Your task to perform on an android device: Go to wifi settings Image 0: 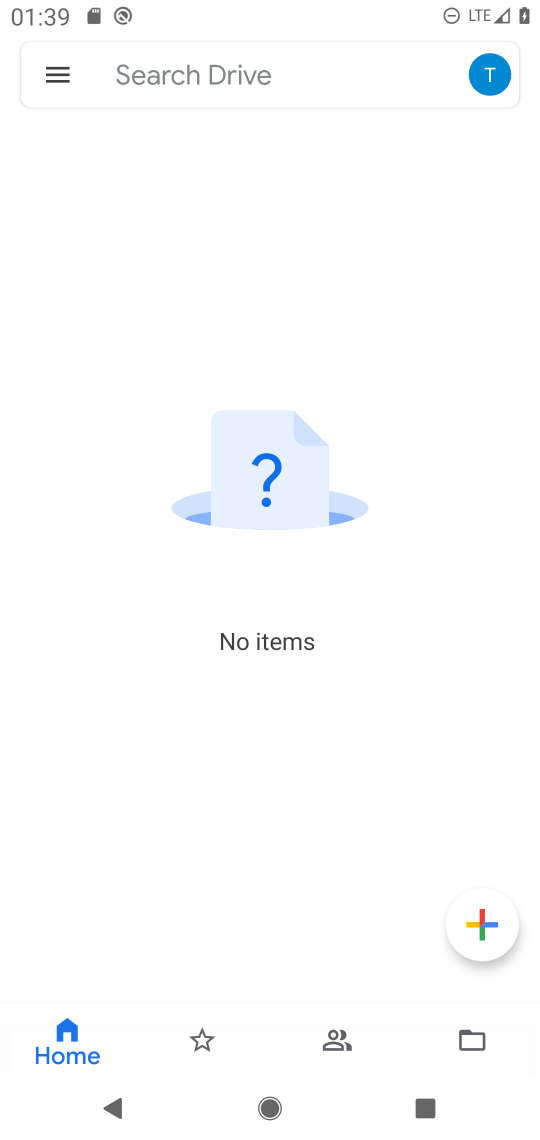
Step 0: press home button
Your task to perform on an android device: Go to wifi settings Image 1: 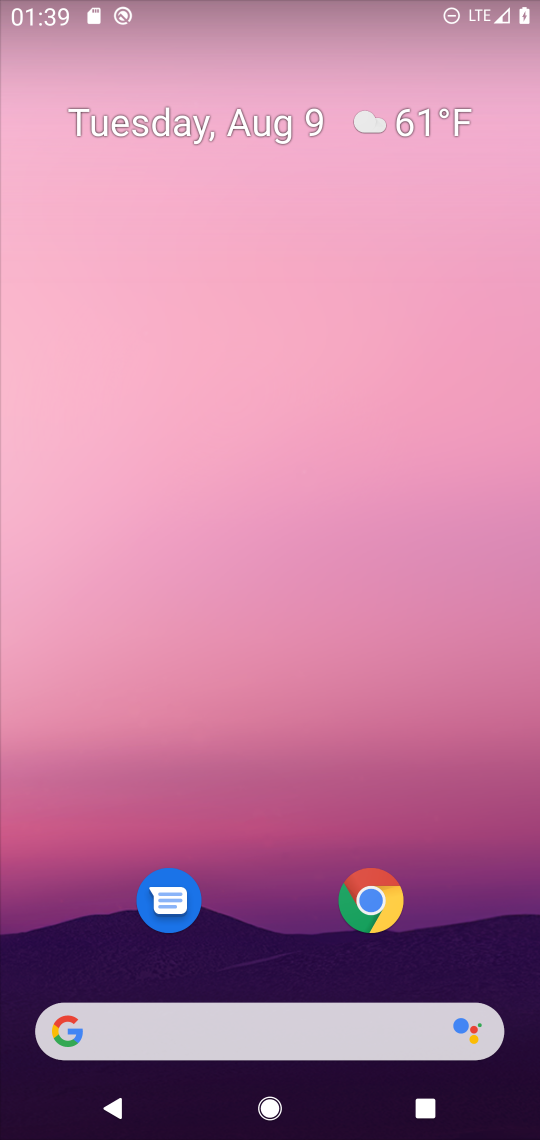
Step 1: drag from (253, 925) to (333, 123)
Your task to perform on an android device: Go to wifi settings Image 2: 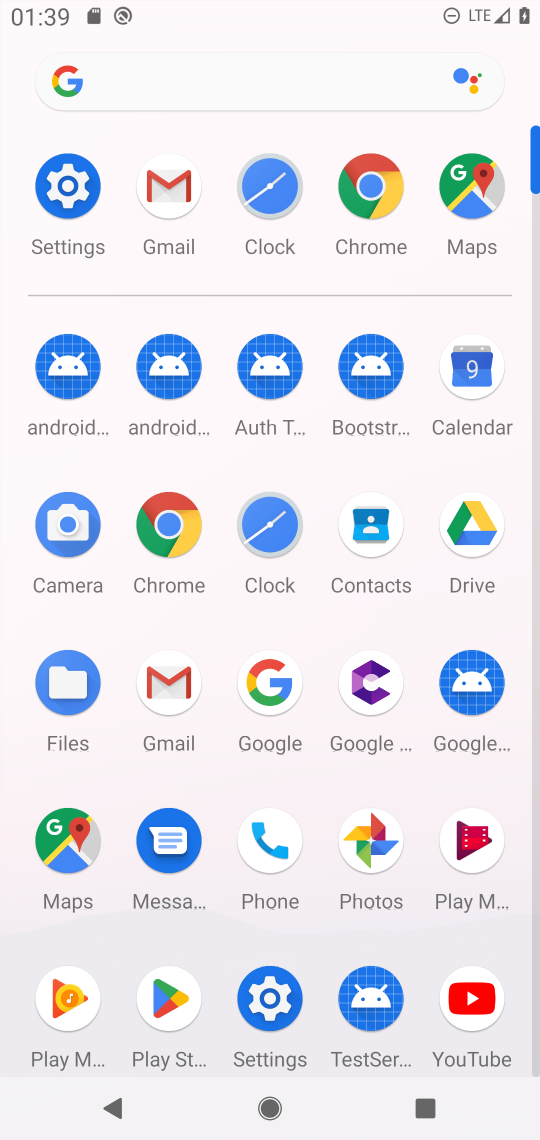
Step 2: click (72, 197)
Your task to perform on an android device: Go to wifi settings Image 3: 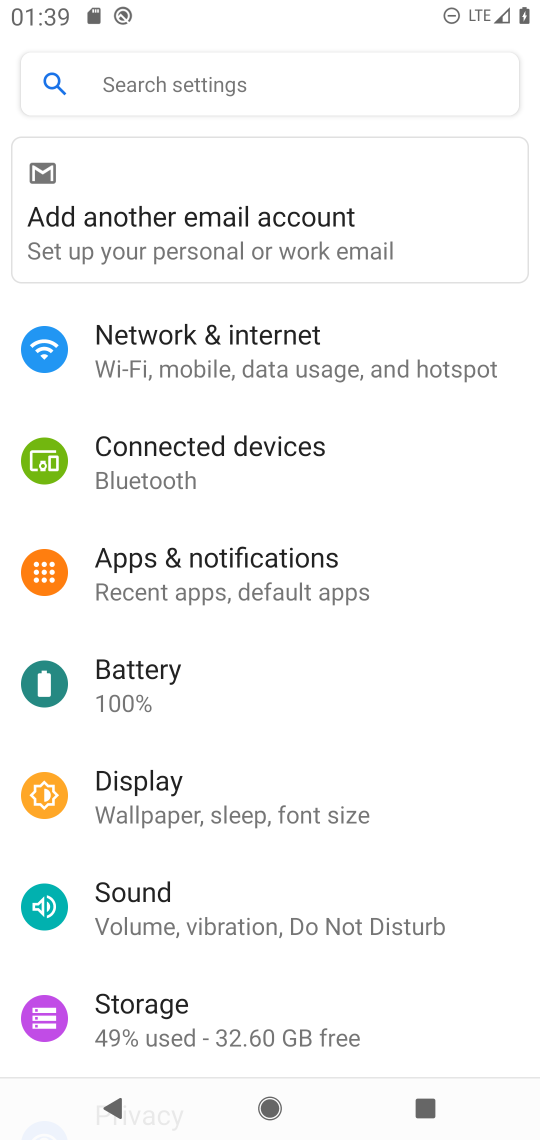
Step 3: drag from (453, 784) to (468, 533)
Your task to perform on an android device: Go to wifi settings Image 4: 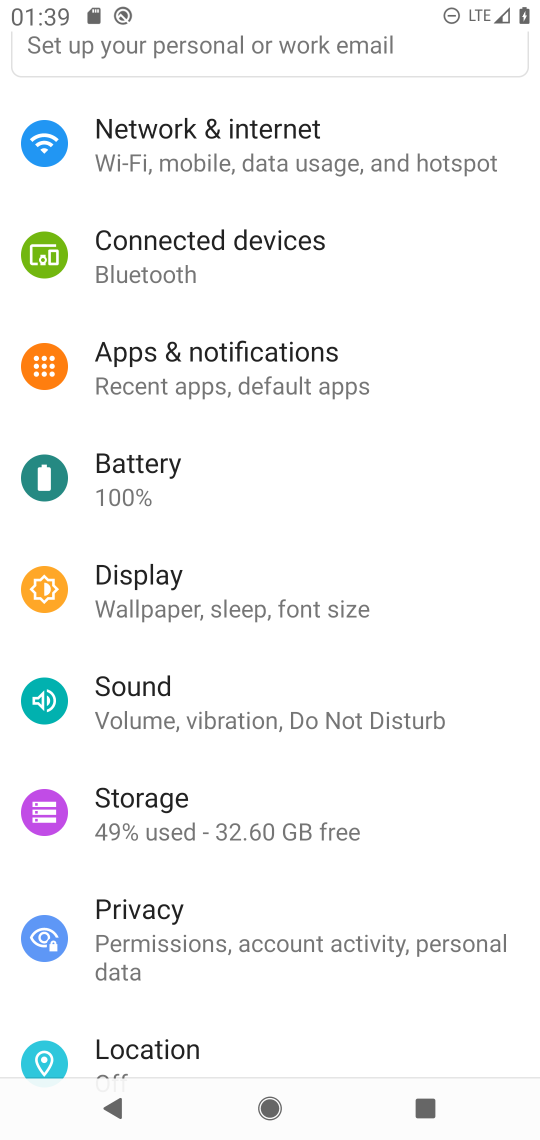
Step 4: drag from (452, 837) to (496, 511)
Your task to perform on an android device: Go to wifi settings Image 5: 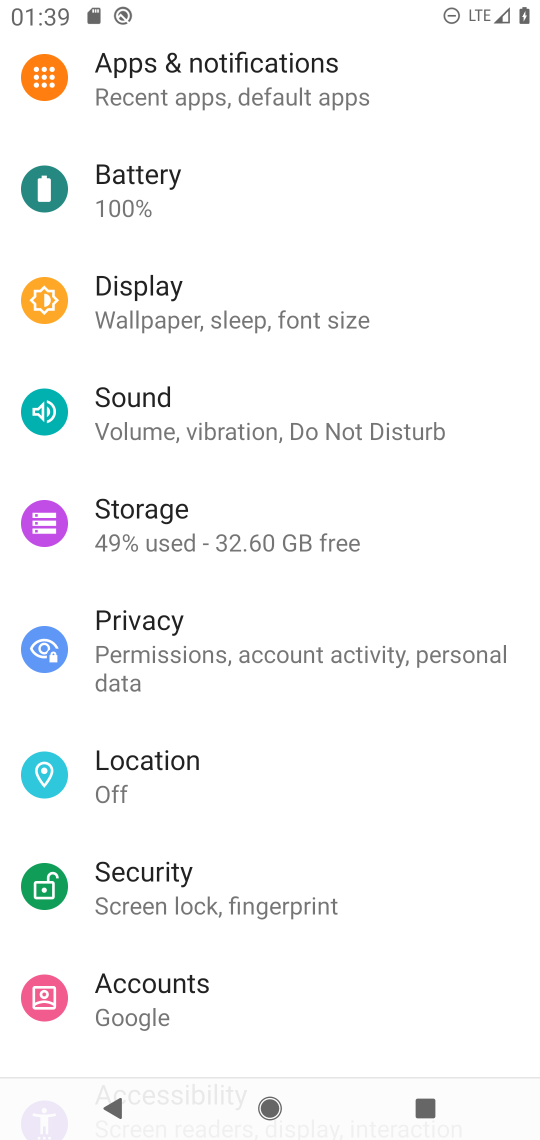
Step 5: drag from (449, 975) to (464, 392)
Your task to perform on an android device: Go to wifi settings Image 6: 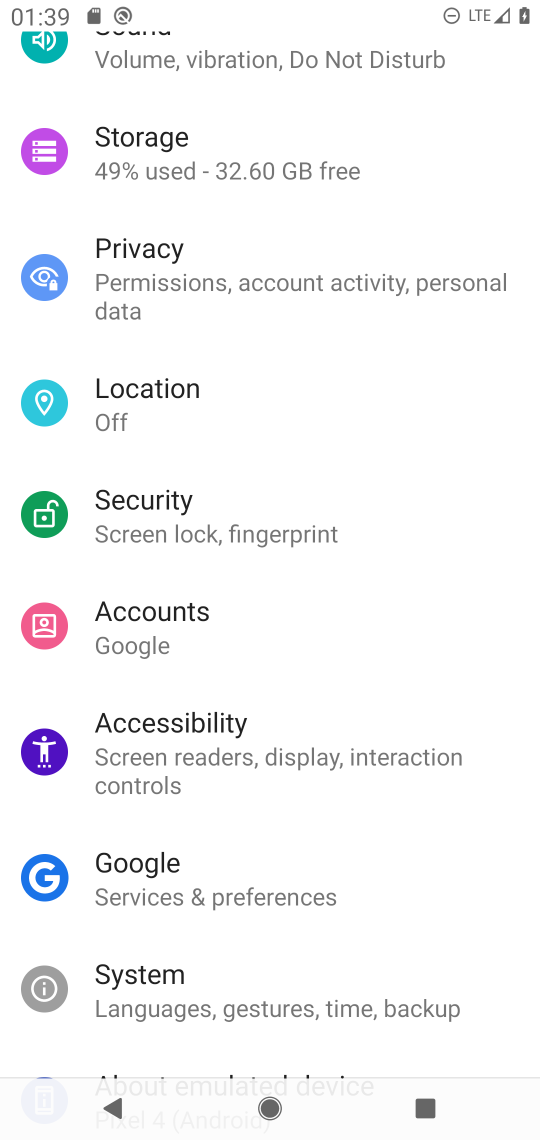
Step 6: drag from (422, 903) to (444, 458)
Your task to perform on an android device: Go to wifi settings Image 7: 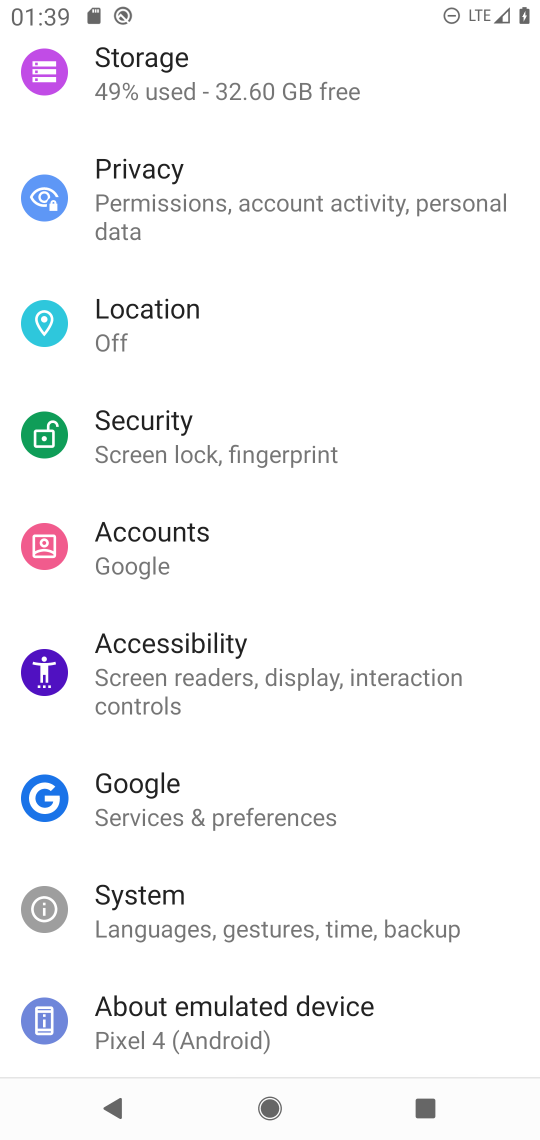
Step 7: drag from (420, 293) to (426, 647)
Your task to perform on an android device: Go to wifi settings Image 8: 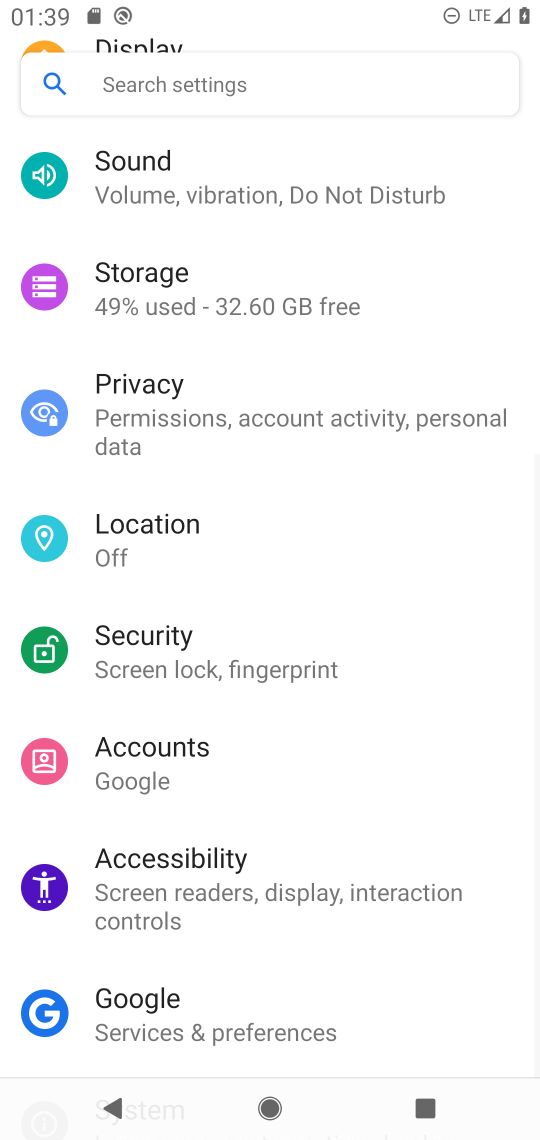
Step 8: drag from (483, 185) to (442, 667)
Your task to perform on an android device: Go to wifi settings Image 9: 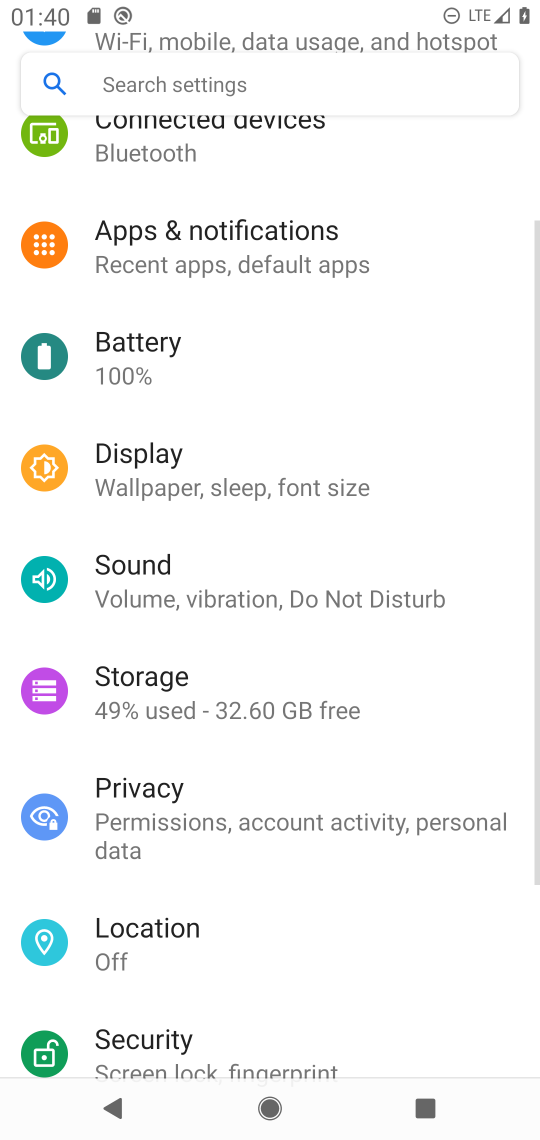
Step 9: drag from (451, 182) to (438, 556)
Your task to perform on an android device: Go to wifi settings Image 10: 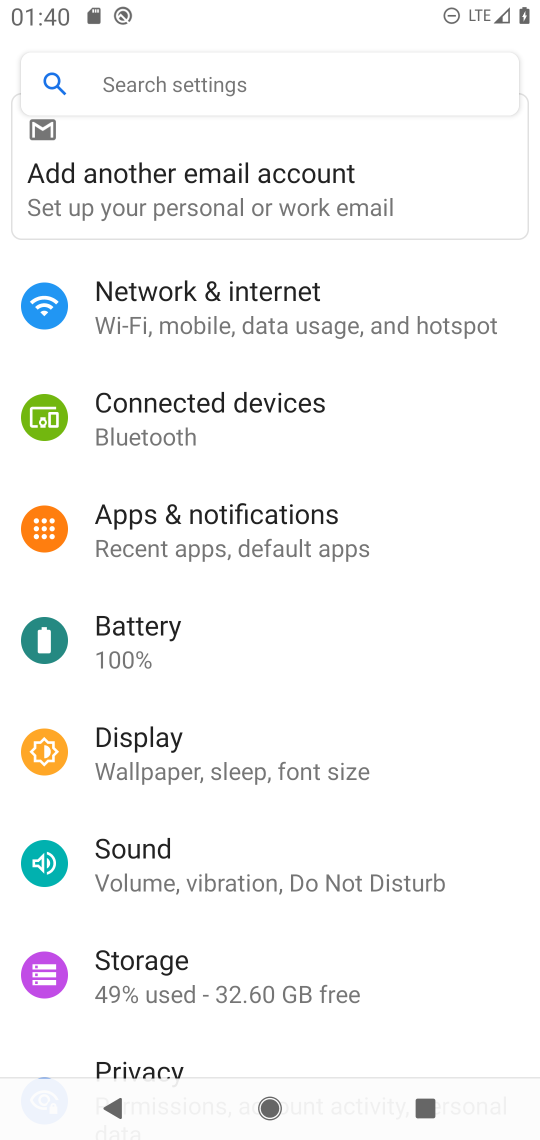
Step 10: drag from (476, 211) to (453, 581)
Your task to perform on an android device: Go to wifi settings Image 11: 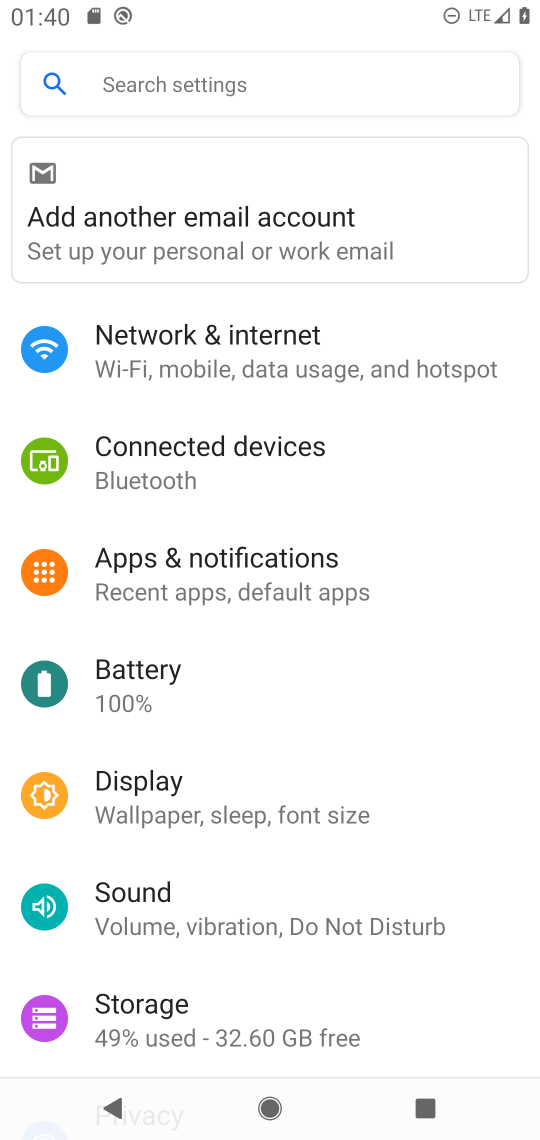
Step 11: click (303, 367)
Your task to perform on an android device: Go to wifi settings Image 12: 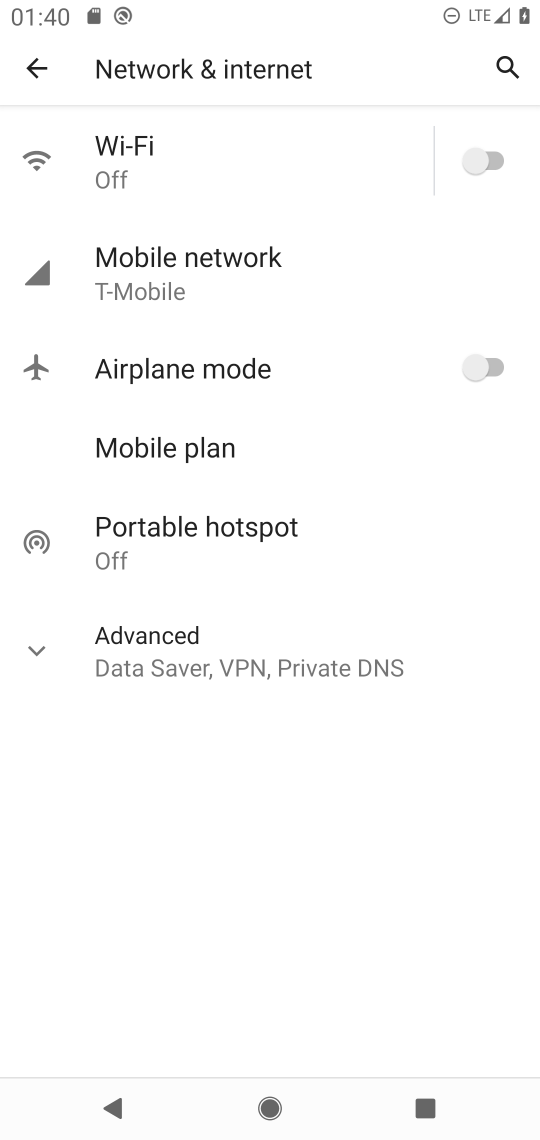
Step 12: click (135, 151)
Your task to perform on an android device: Go to wifi settings Image 13: 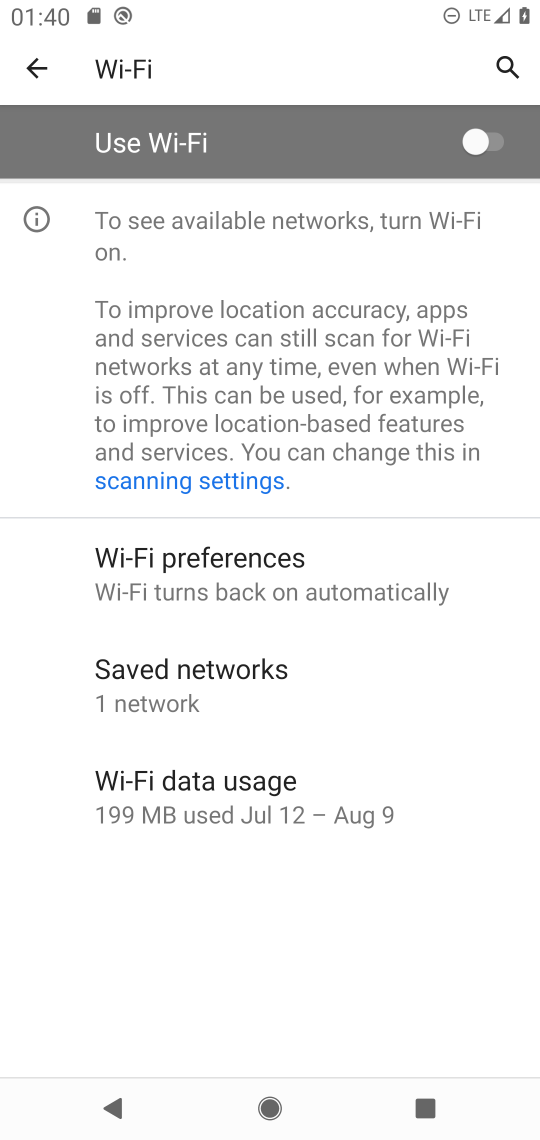
Step 13: task complete